Your task to perform on an android device: Open location settings Image 0: 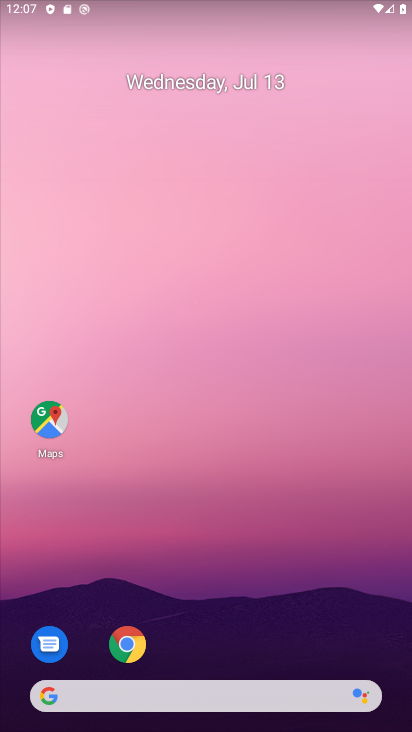
Step 0: drag from (320, 543) to (247, 59)
Your task to perform on an android device: Open location settings Image 1: 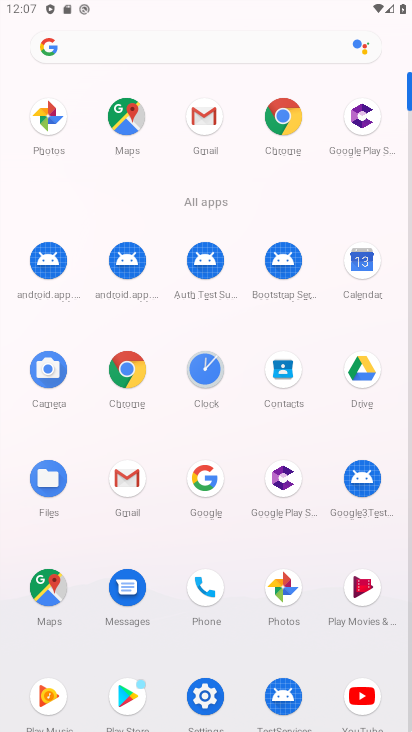
Step 1: click (204, 694)
Your task to perform on an android device: Open location settings Image 2: 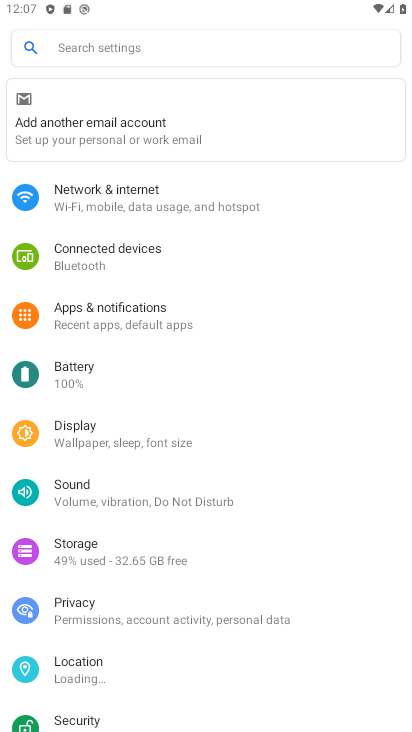
Step 2: drag from (209, 668) to (288, 310)
Your task to perform on an android device: Open location settings Image 3: 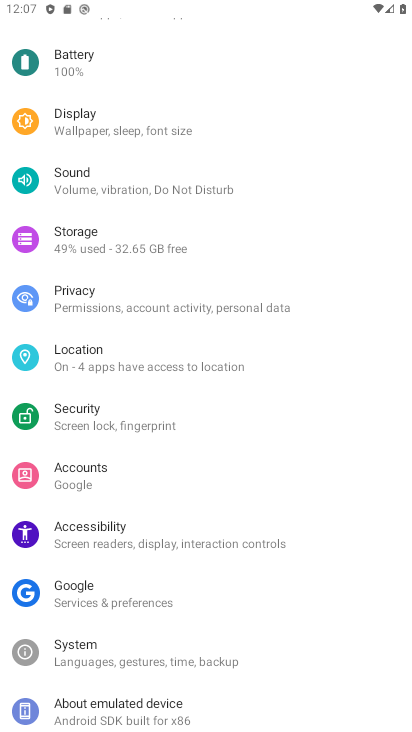
Step 3: click (91, 363)
Your task to perform on an android device: Open location settings Image 4: 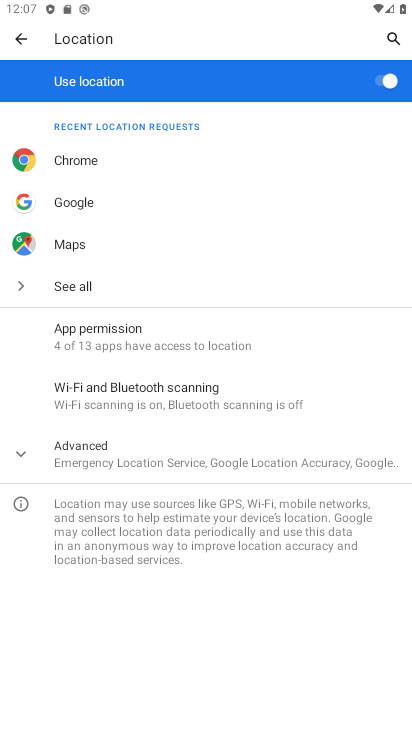
Step 4: task complete